Your task to perform on an android device: Open Maps and search for coffee Image 0: 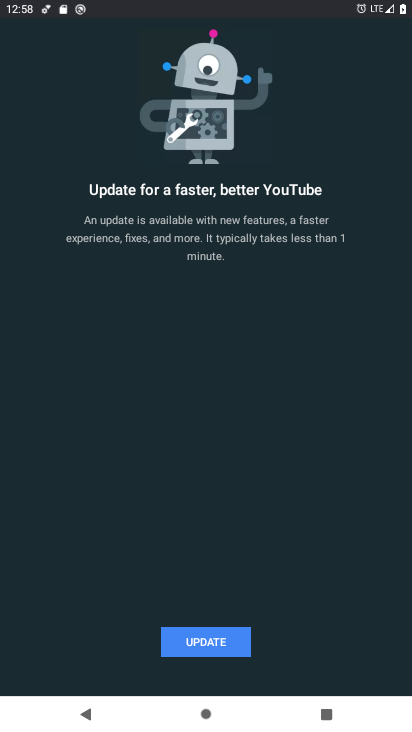
Step 0: press home button
Your task to perform on an android device: Open Maps and search for coffee Image 1: 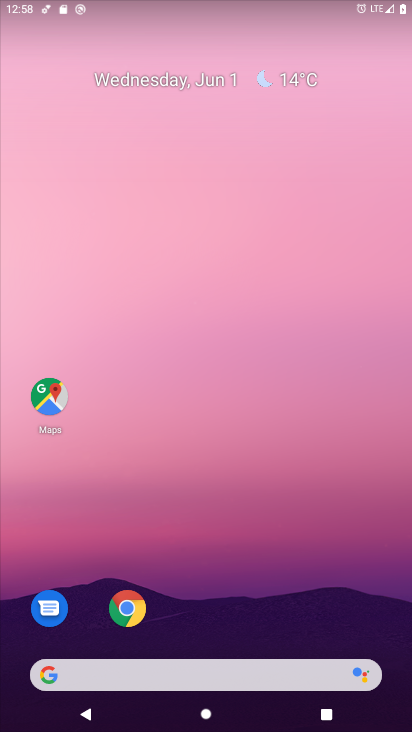
Step 1: drag from (220, 577) to (284, 19)
Your task to perform on an android device: Open Maps and search for coffee Image 2: 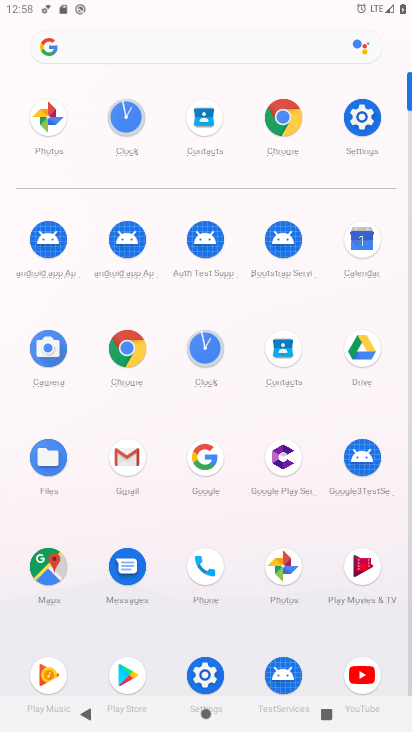
Step 2: click (46, 560)
Your task to perform on an android device: Open Maps and search for coffee Image 3: 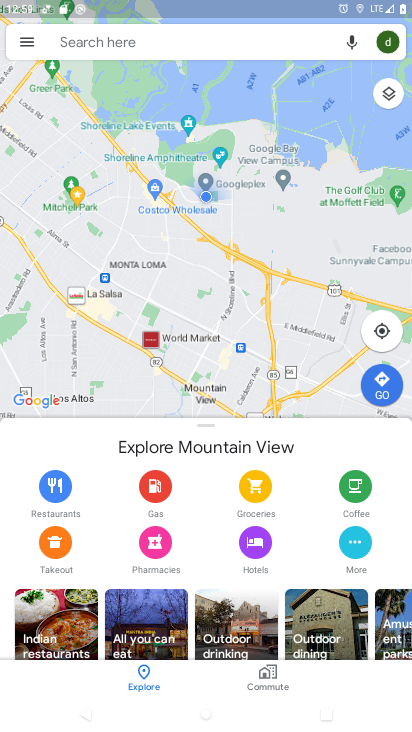
Step 3: click (119, 34)
Your task to perform on an android device: Open Maps and search for coffee Image 4: 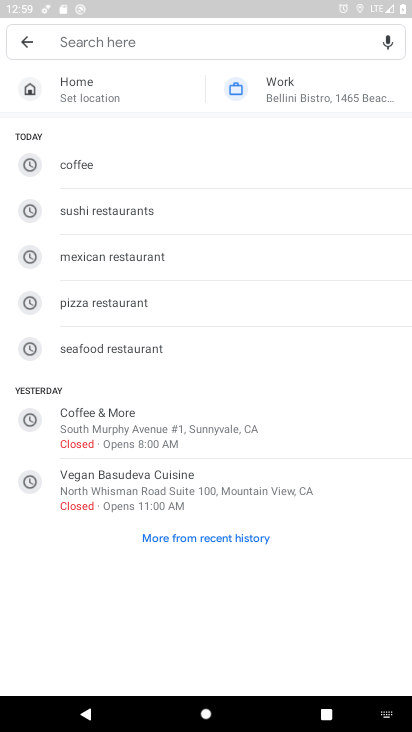
Step 4: type "coffee"
Your task to perform on an android device: Open Maps and search for coffee Image 5: 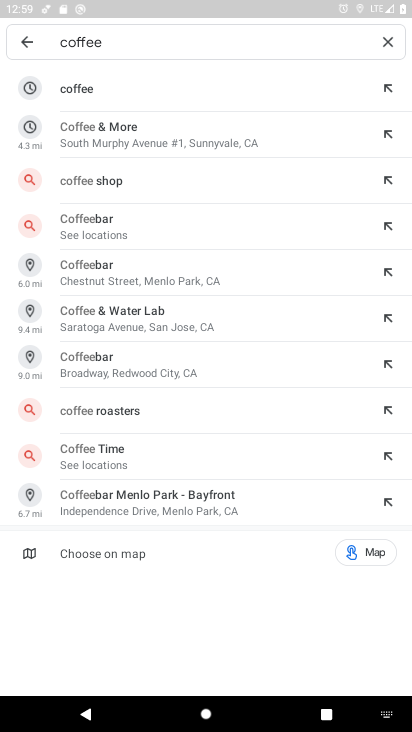
Step 5: click (108, 89)
Your task to perform on an android device: Open Maps and search for coffee Image 6: 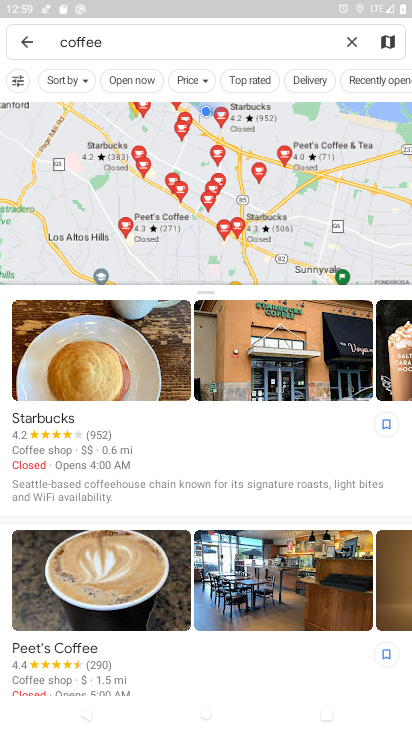
Step 6: task complete